Your task to perform on an android device: Go to wifi settings Image 0: 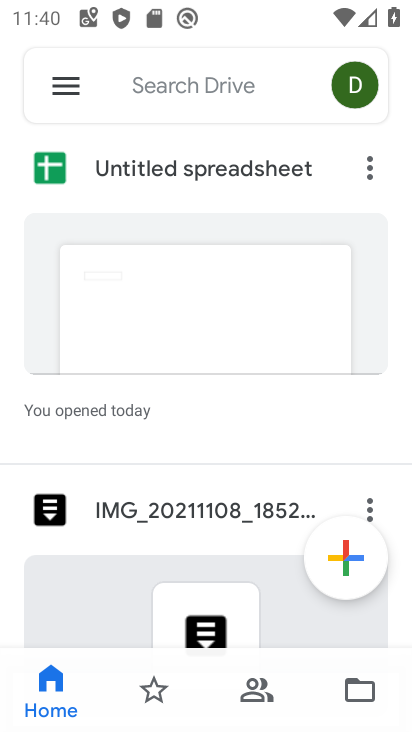
Step 0: press home button
Your task to perform on an android device: Go to wifi settings Image 1: 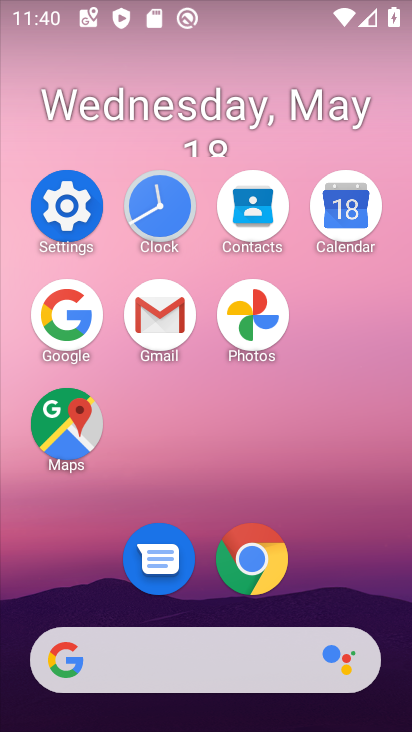
Step 1: click (63, 199)
Your task to perform on an android device: Go to wifi settings Image 2: 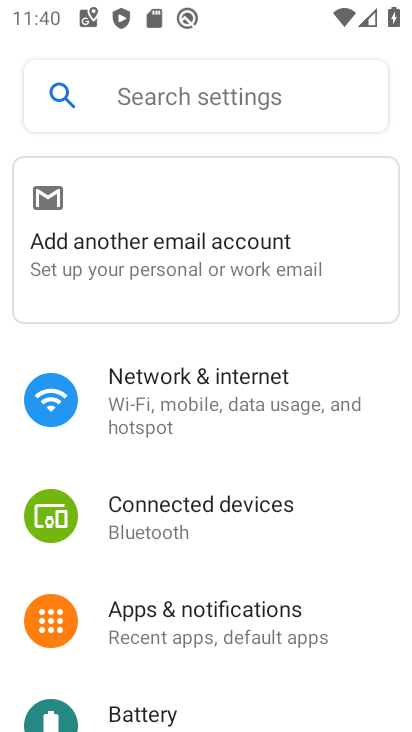
Step 2: click (259, 419)
Your task to perform on an android device: Go to wifi settings Image 3: 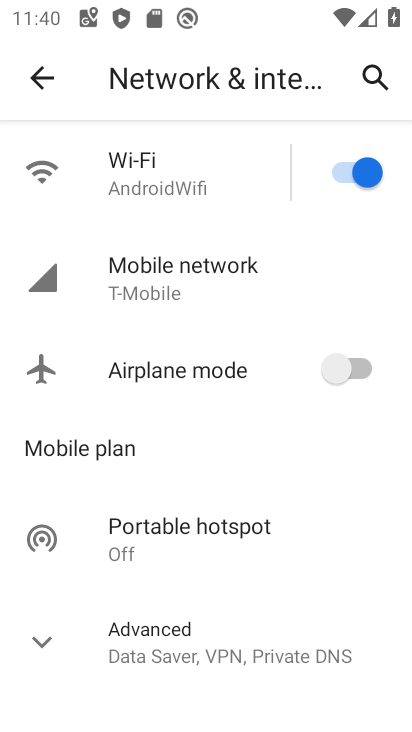
Step 3: click (201, 195)
Your task to perform on an android device: Go to wifi settings Image 4: 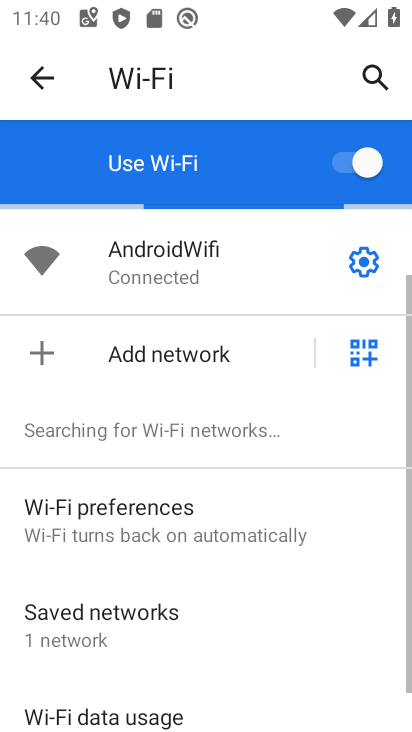
Step 4: click (363, 255)
Your task to perform on an android device: Go to wifi settings Image 5: 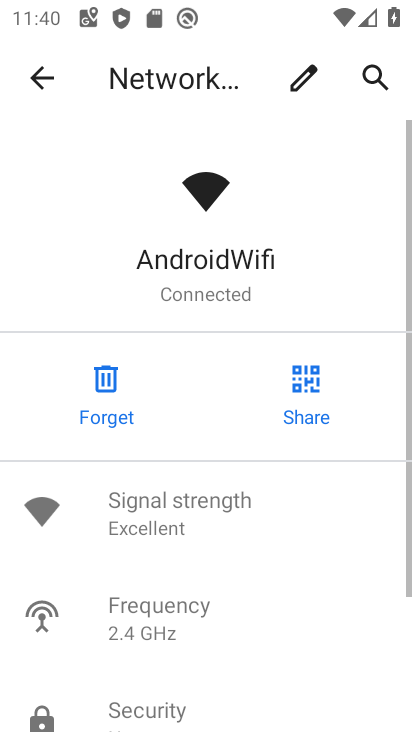
Step 5: task complete